Your task to perform on an android device: add a label to a message in the gmail app Image 0: 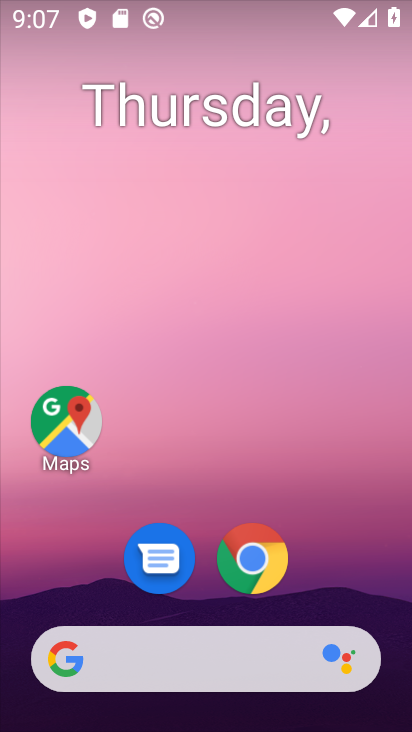
Step 0: drag from (370, 608) to (301, 192)
Your task to perform on an android device: add a label to a message in the gmail app Image 1: 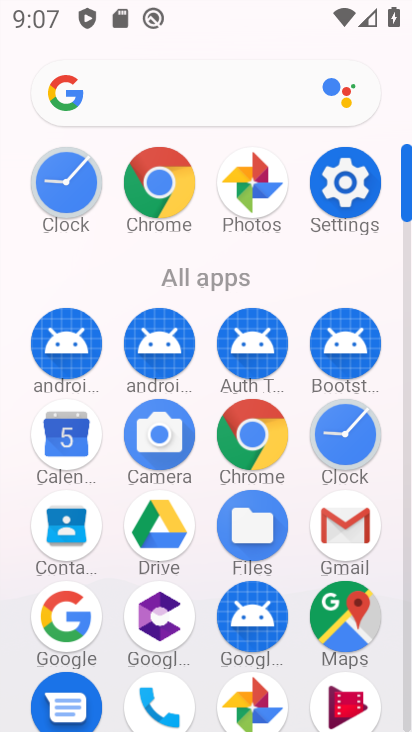
Step 1: click (403, 703)
Your task to perform on an android device: add a label to a message in the gmail app Image 2: 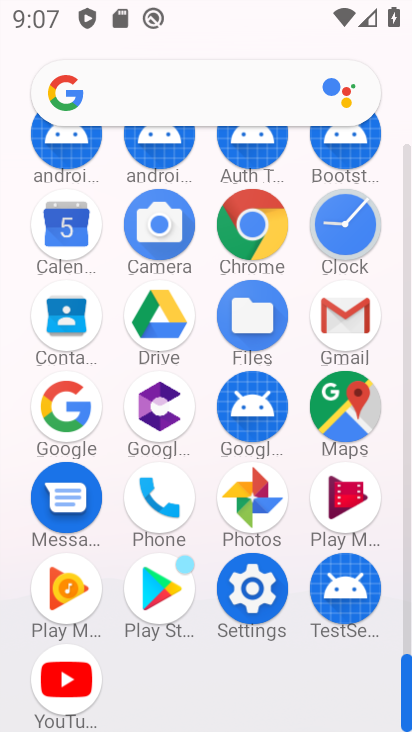
Step 2: click (343, 313)
Your task to perform on an android device: add a label to a message in the gmail app Image 3: 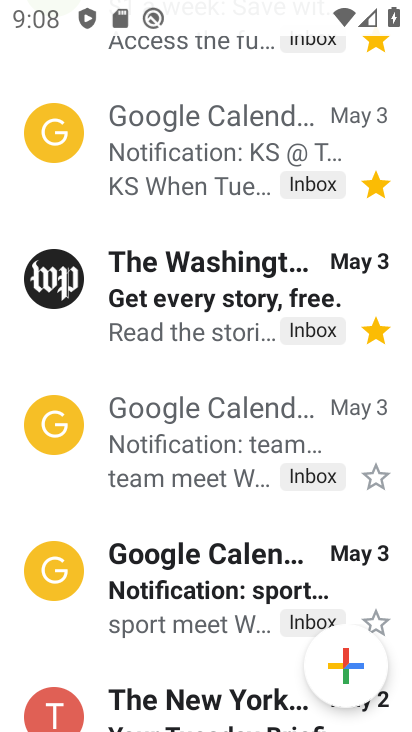
Step 3: click (191, 468)
Your task to perform on an android device: add a label to a message in the gmail app Image 4: 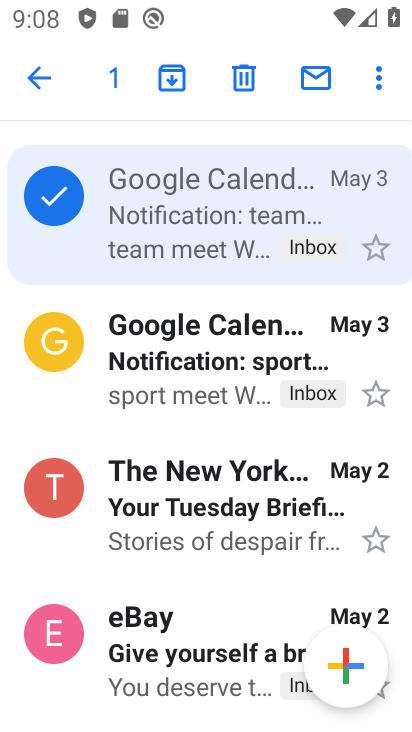
Step 4: click (373, 78)
Your task to perform on an android device: add a label to a message in the gmail app Image 5: 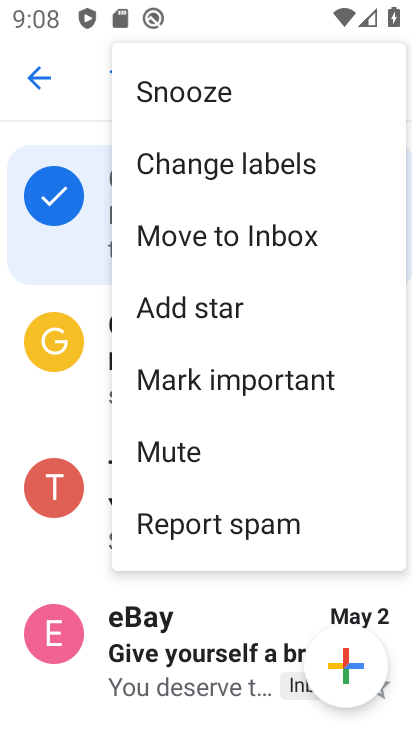
Step 5: click (188, 160)
Your task to perform on an android device: add a label to a message in the gmail app Image 6: 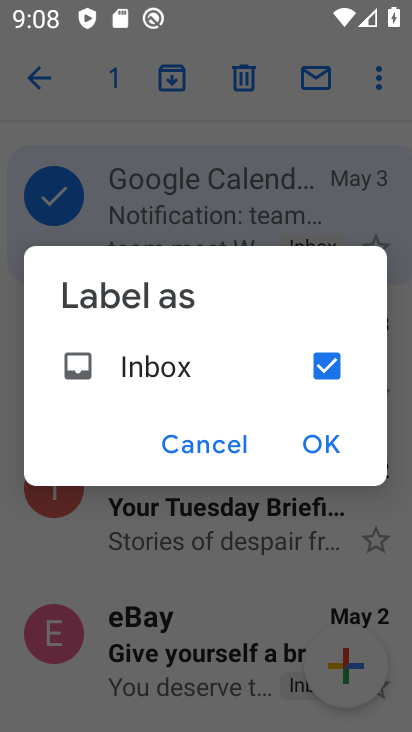
Step 6: click (320, 447)
Your task to perform on an android device: add a label to a message in the gmail app Image 7: 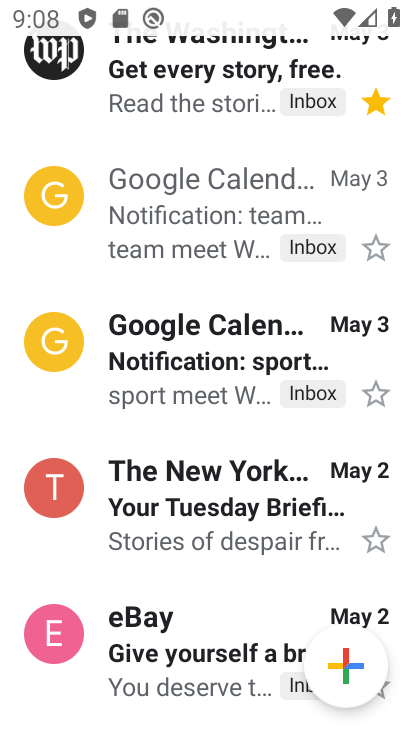
Step 7: task complete